Your task to perform on an android device: open app "Truecaller" (install if not already installed) Image 0: 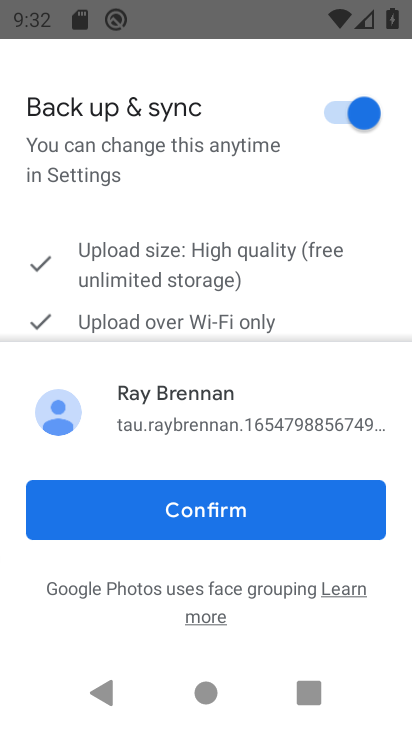
Step 0: press home button
Your task to perform on an android device: open app "Truecaller" (install if not already installed) Image 1: 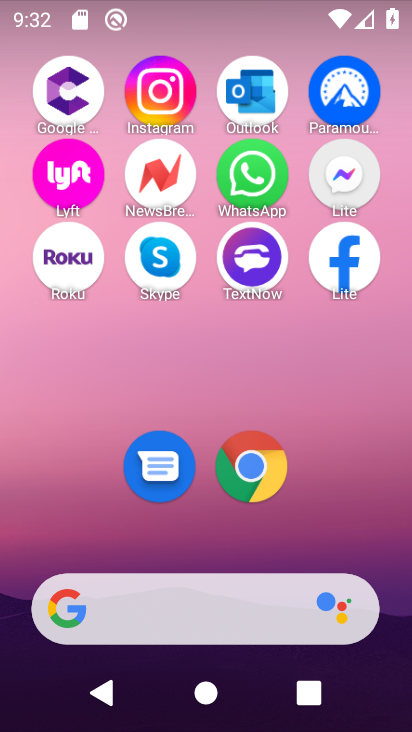
Step 1: drag from (243, 726) to (224, 114)
Your task to perform on an android device: open app "Truecaller" (install if not already installed) Image 2: 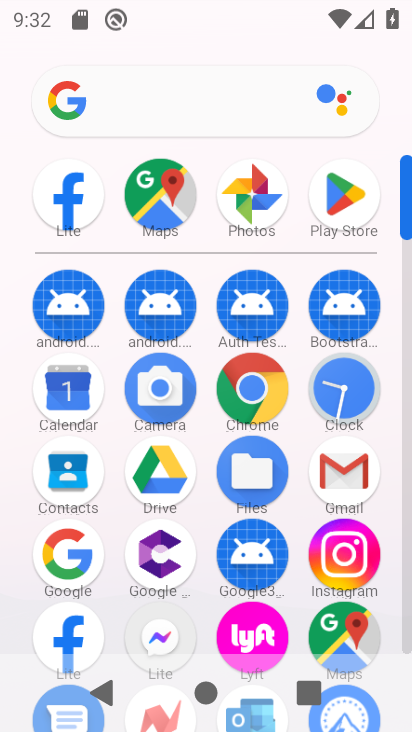
Step 2: click (344, 216)
Your task to perform on an android device: open app "Truecaller" (install if not already installed) Image 3: 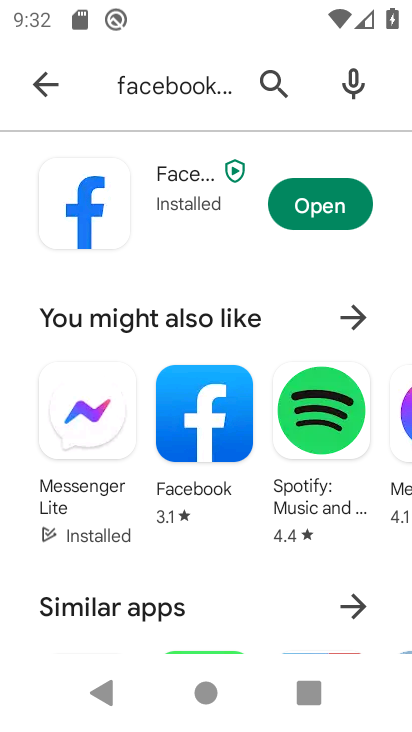
Step 3: click (271, 79)
Your task to perform on an android device: open app "Truecaller" (install if not already installed) Image 4: 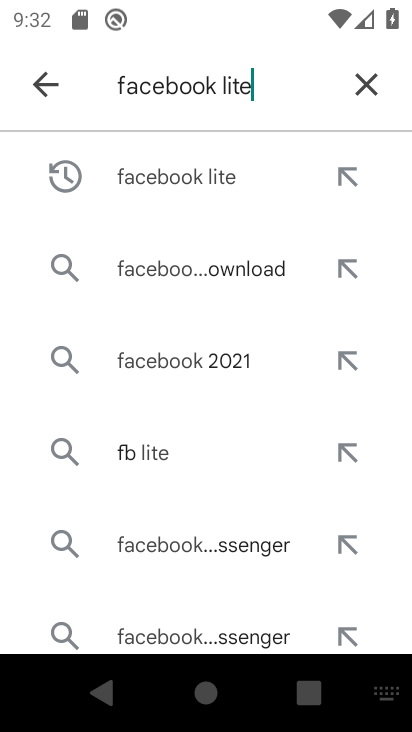
Step 4: click (365, 83)
Your task to perform on an android device: open app "Truecaller" (install if not already installed) Image 5: 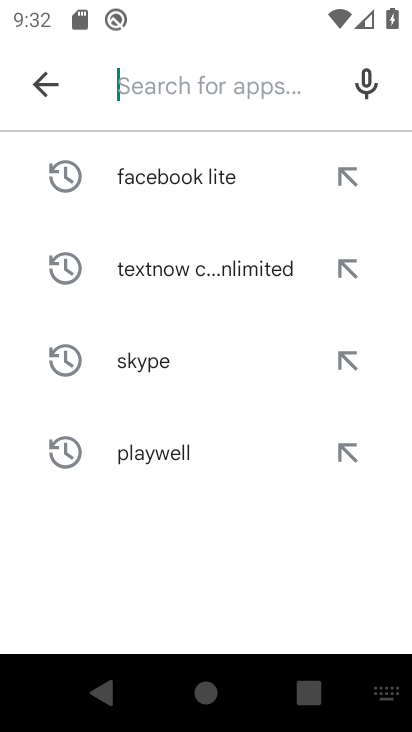
Step 5: type "Truecaller"
Your task to perform on an android device: open app "Truecaller" (install if not already installed) Image 6: 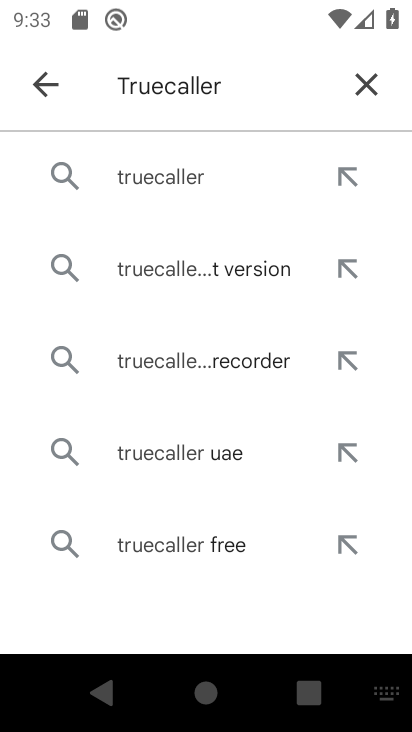
Step 6: click (168, 174)
Your task to perform on an android device: open app "Truecaller" (install if not already installed) Image 7: 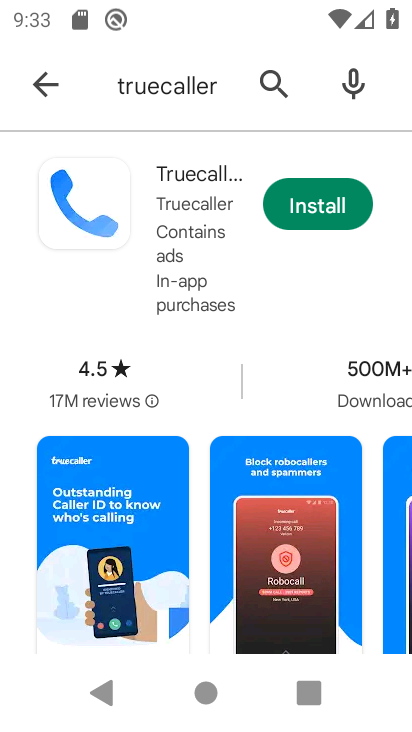
Step 7: click (312, 205)
Your task to perform on an android device: open app "Truecaller" (install if not already installed) Image 8: 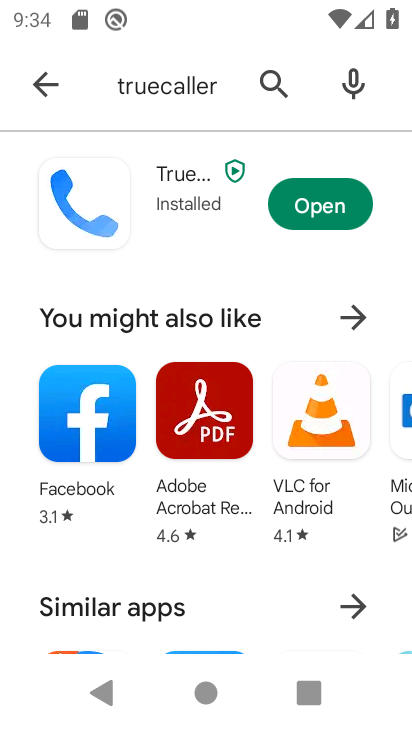
Step 8: click (300, 203)
Your task to perform on an android device: open app "Truecaller" (install if not already installed) Image 9: 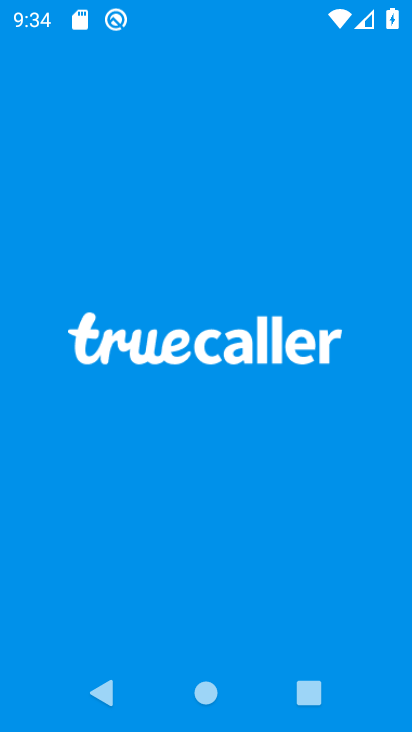
Step 9: task complete